Your task to perform on an android device: install app "Instagram" Image 0: 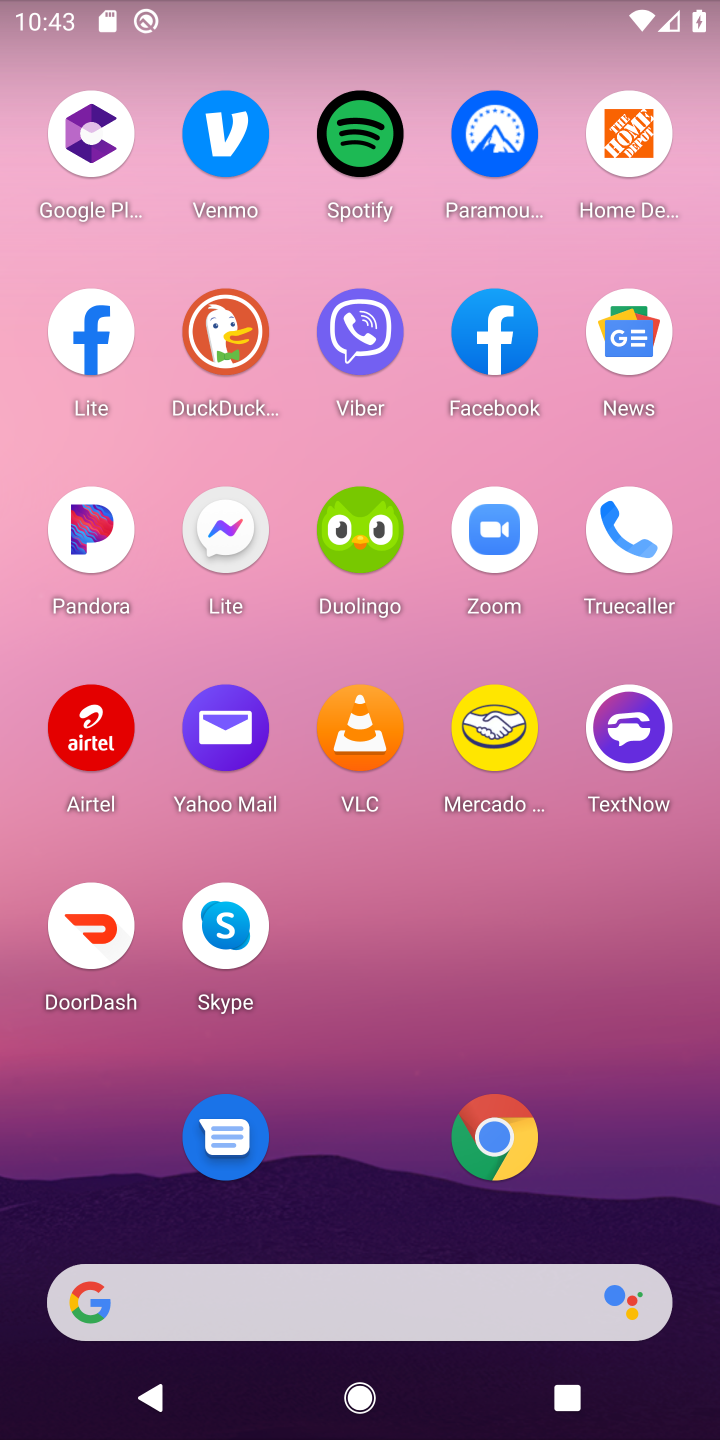
Step 0: drag from (365, 1085) to (301, 365)
Your task to perform on an android device: install app "Instagram" Image 1: 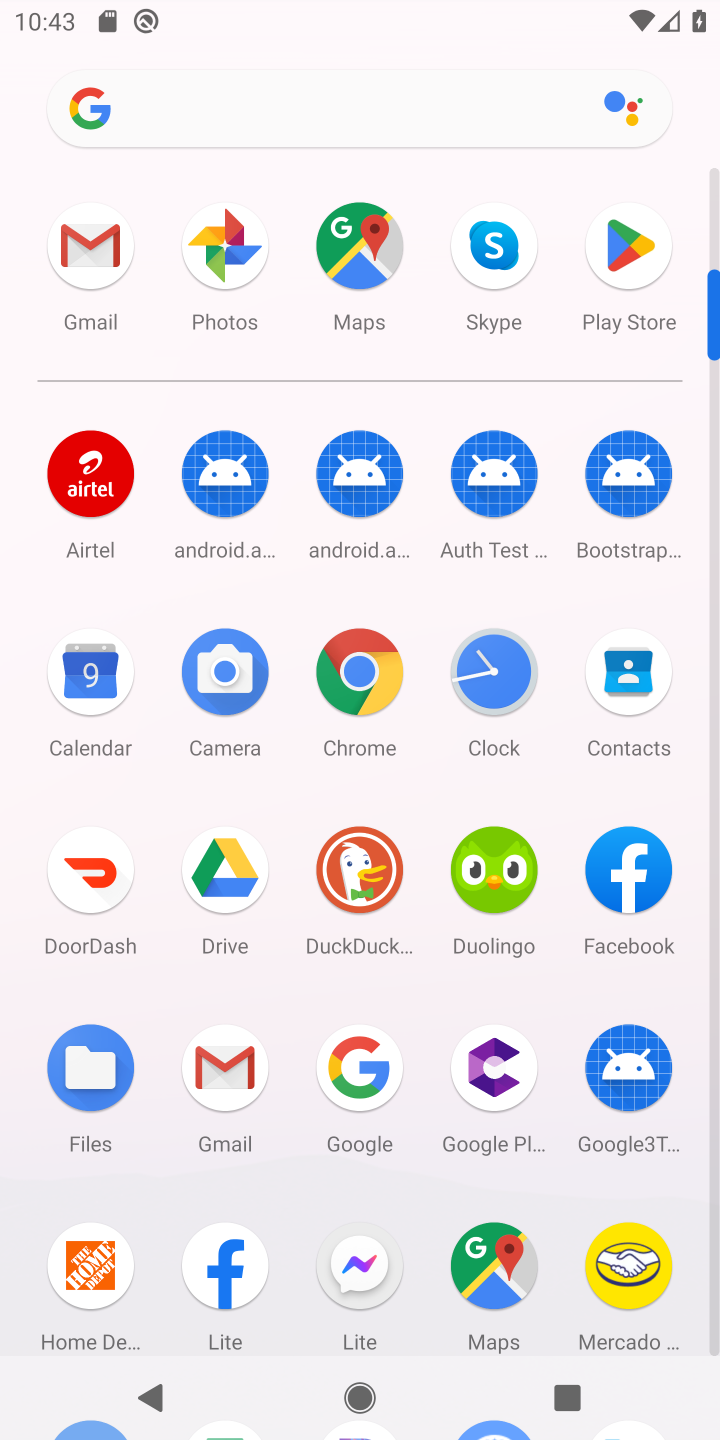
Step 1: click (626, 249)
Your task to perform on an android device: install app "Instagram" Image 2: 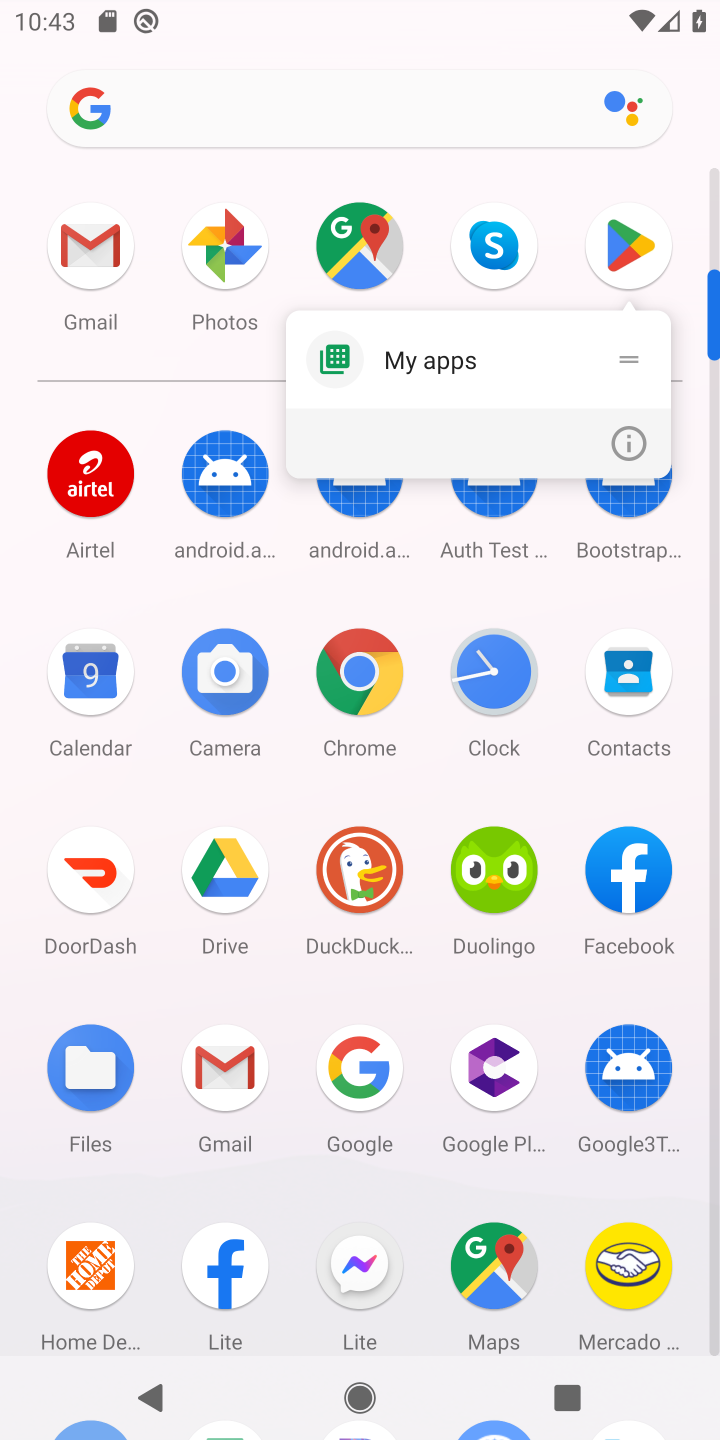
Step 2: click (597, 241)
Your task to perform on an android device: install app "Instagram" Image 3: 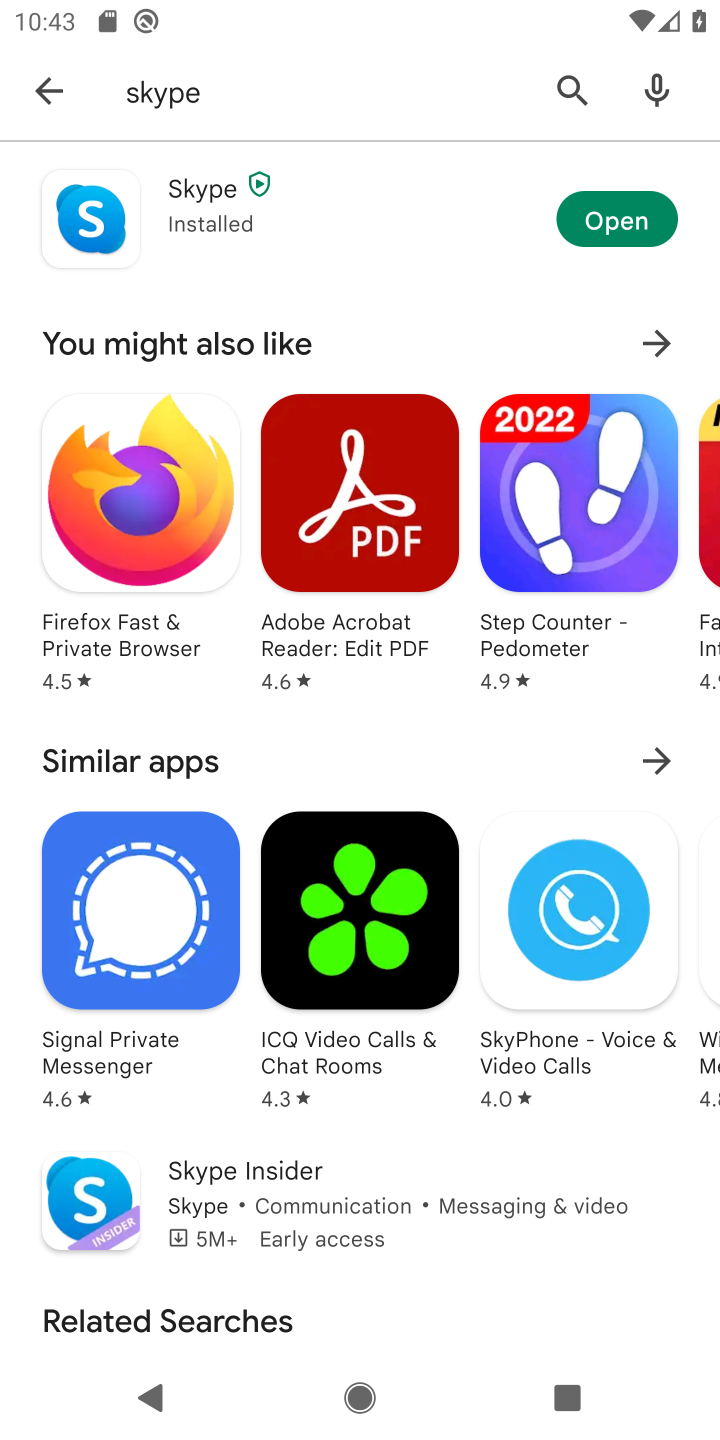
Step 3: click (540, 69)
Your task to perform on an android device: install app "Instagram" Image 4: 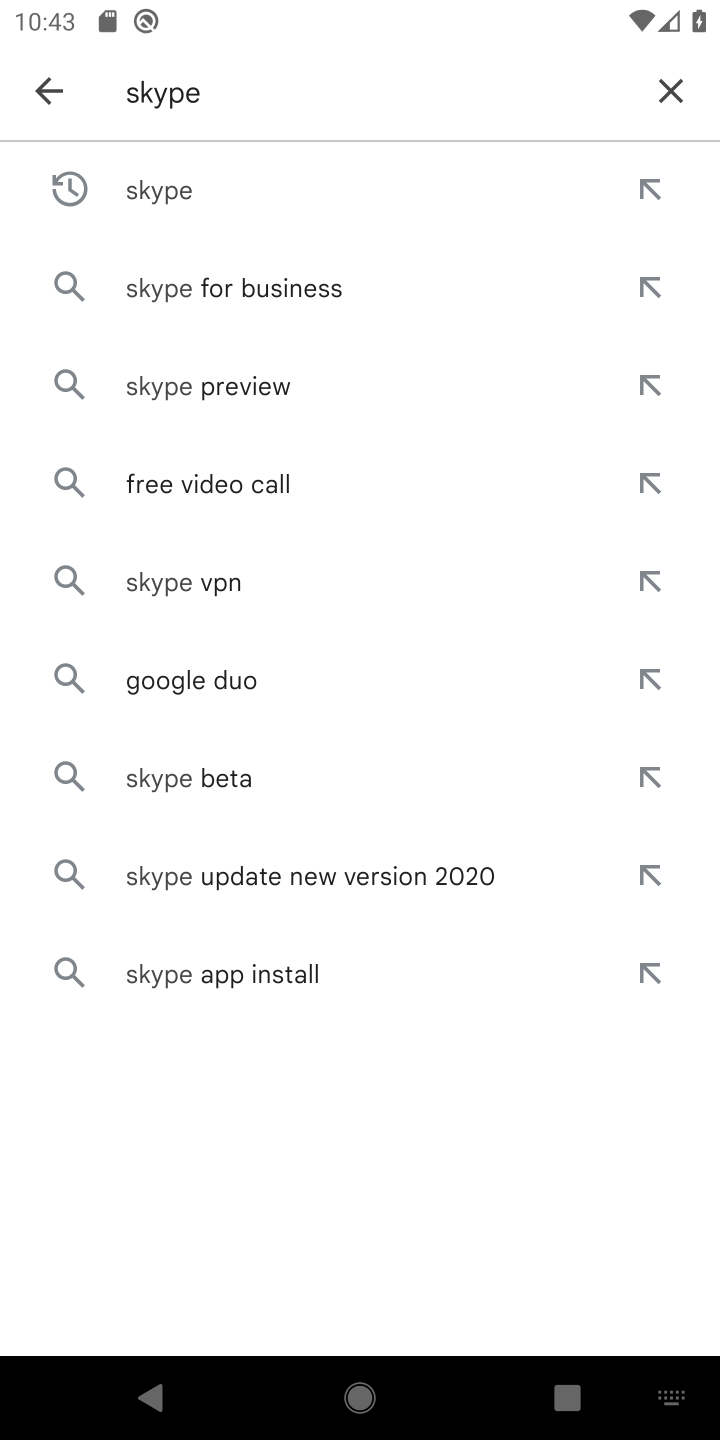
Step 4: click (658, 104)
Your task to perform on an android device: install app "Instagram" Image 5: 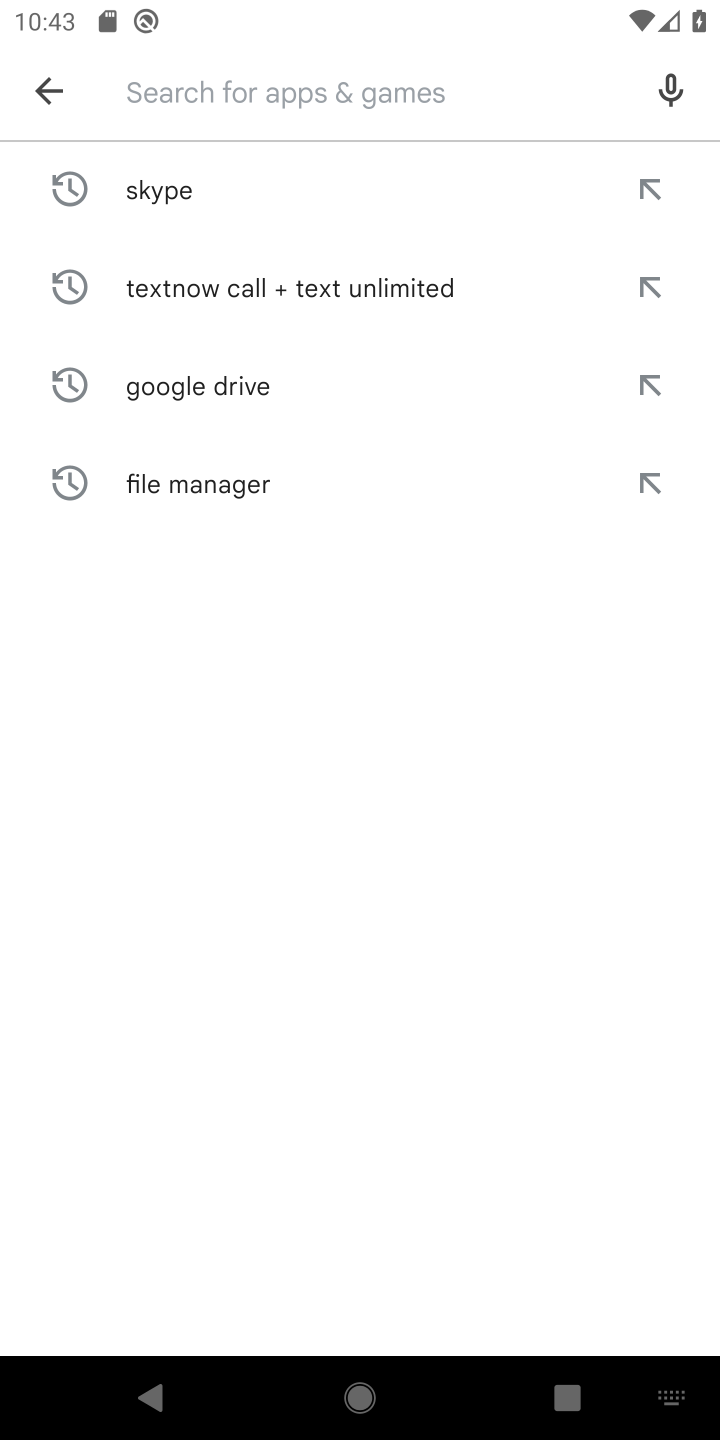
Step 5: type "Instagram"
Your task to perform on an android device: install app "Instagram" Image 6: 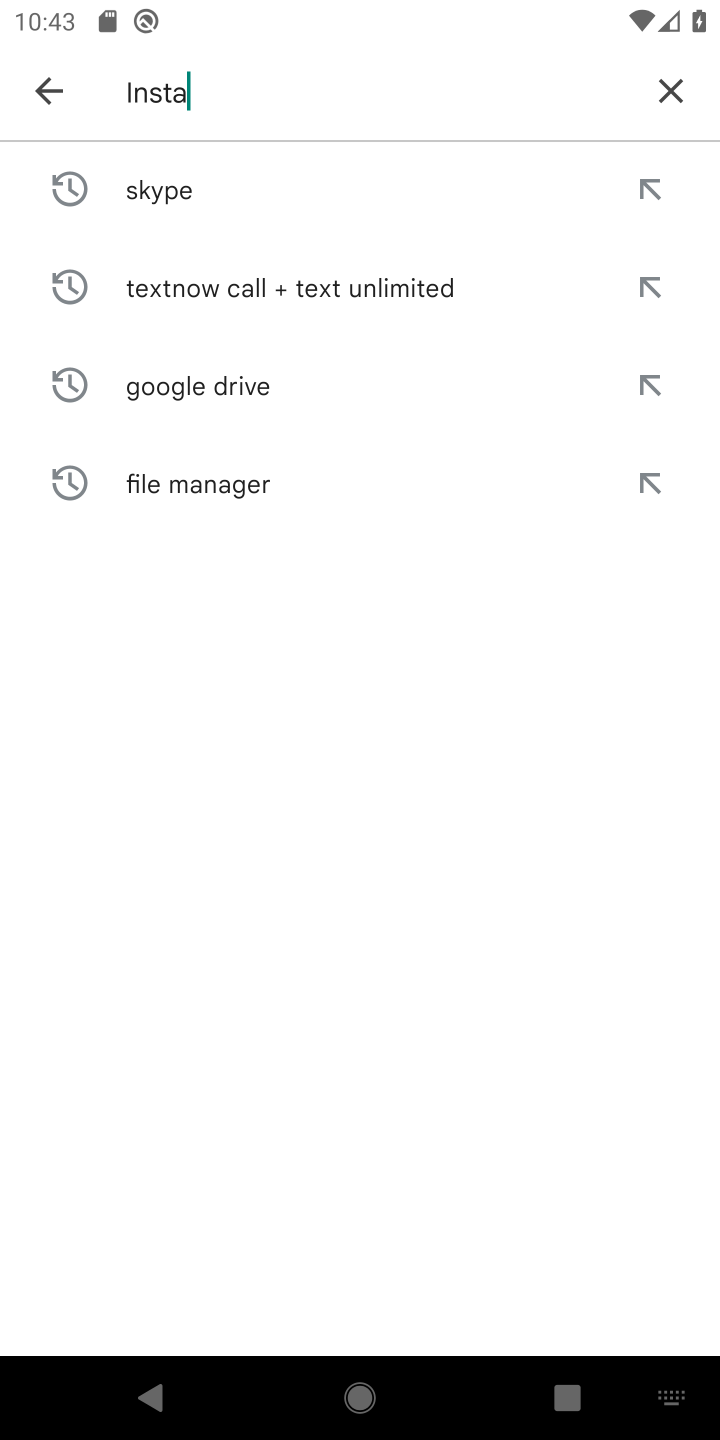
Step 6: type ""
Your task to perform on an android device: install app "Instagram" Image 7: 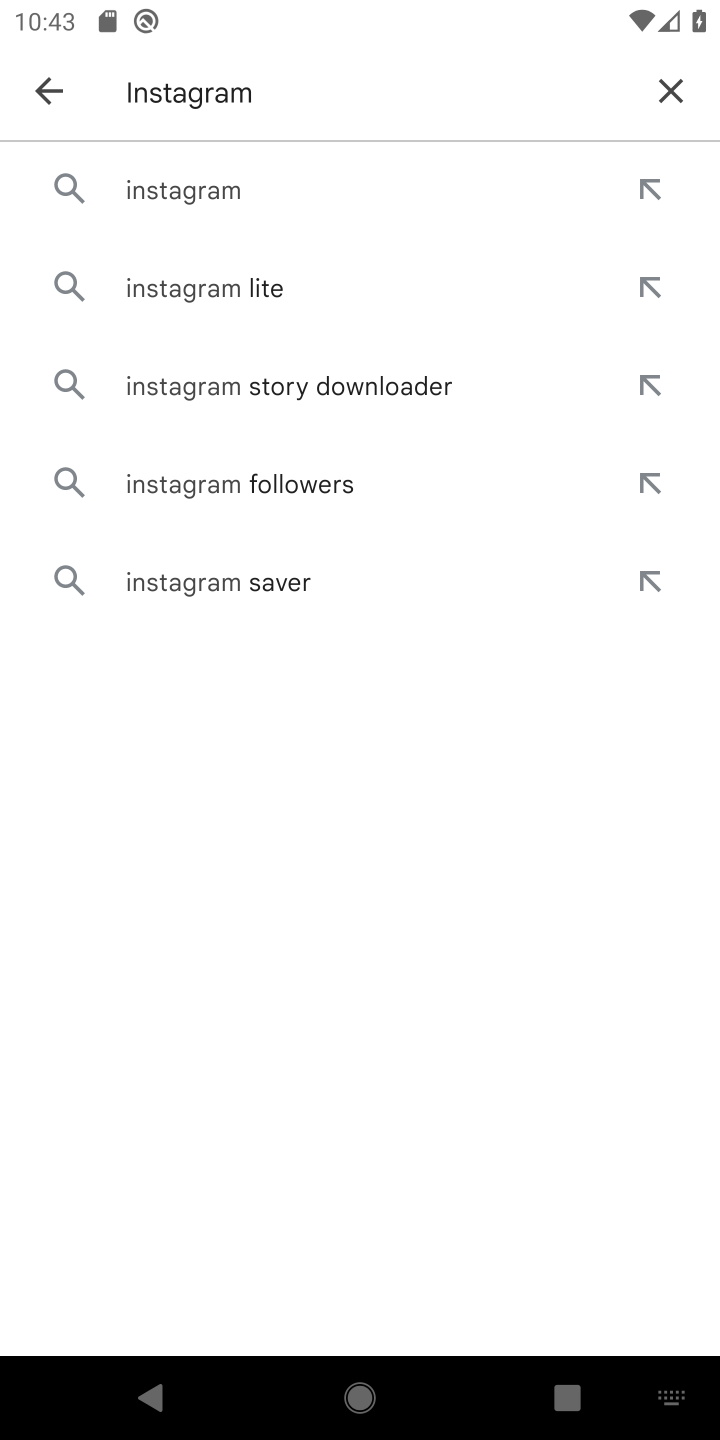
Step 7: click (262, 177)
Your task to perform on an android device: install app "Instagram" Image 8: 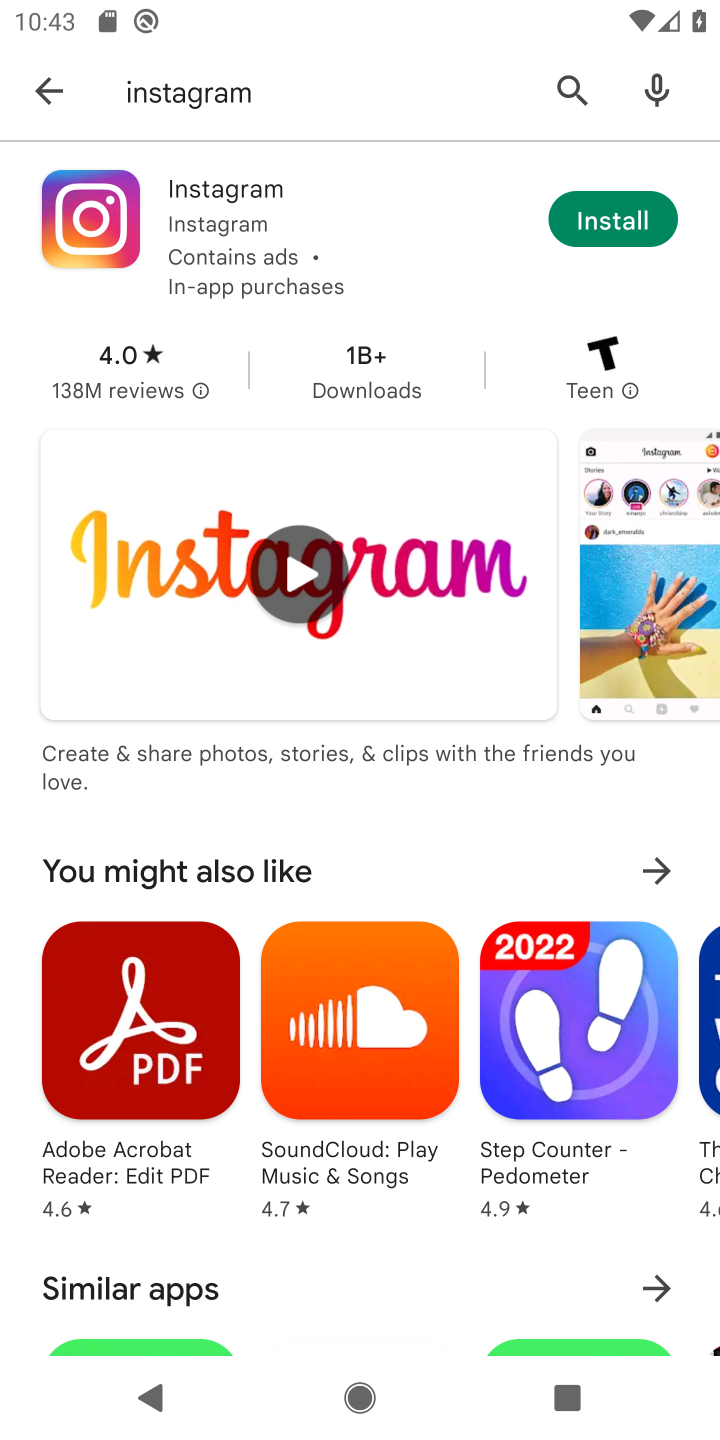
Step 8: click (598, 221)
Your task to perform on an android device: install app "Instagram" Image 9: 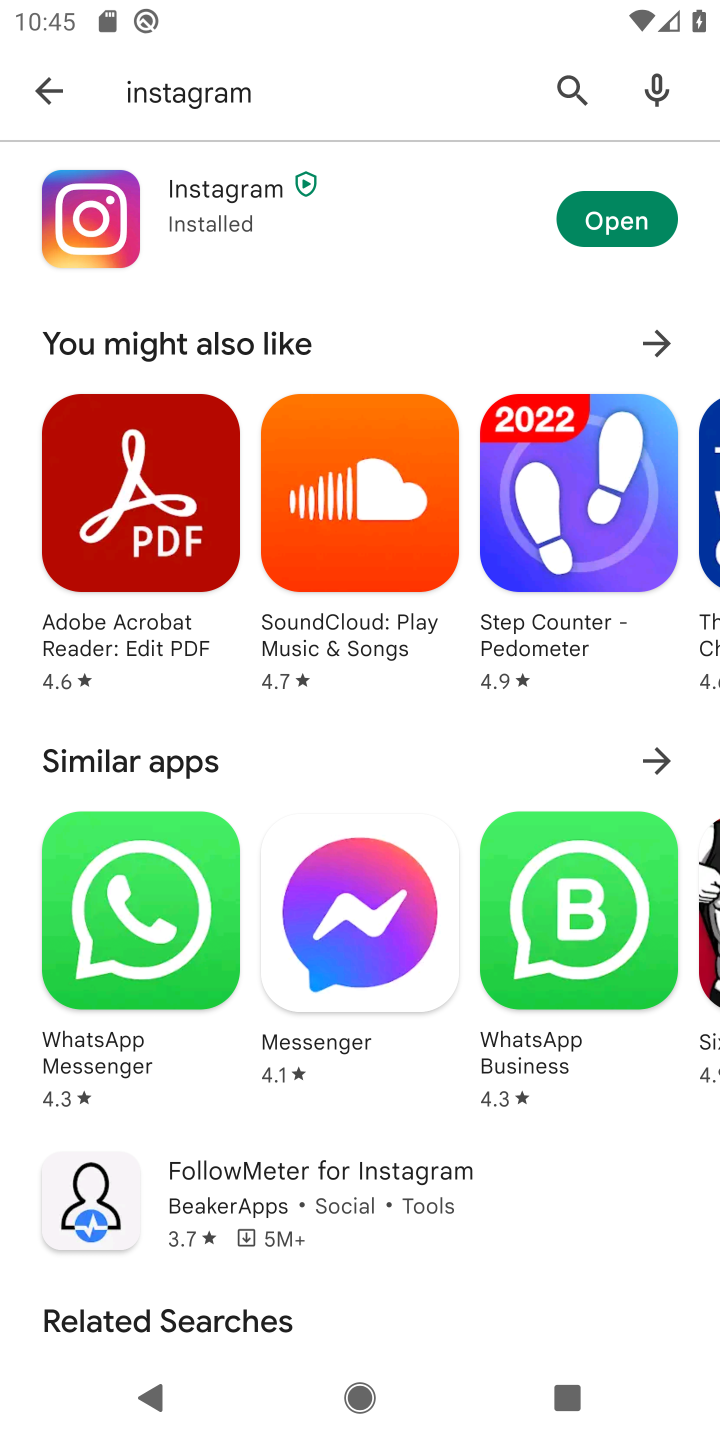
Step 9: task complete